Your task to perform on an android device: Do I have any events today? Image 0: 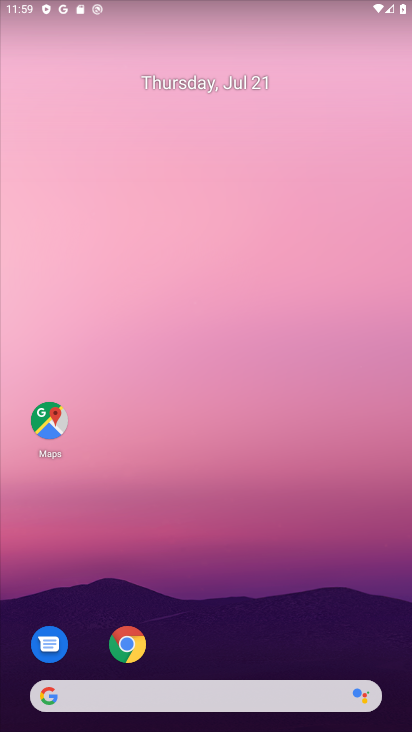
Step 0: drag from (308, 634) to (179, 105)
Your task to perform on an android device: Do I have any events today? Image 1: 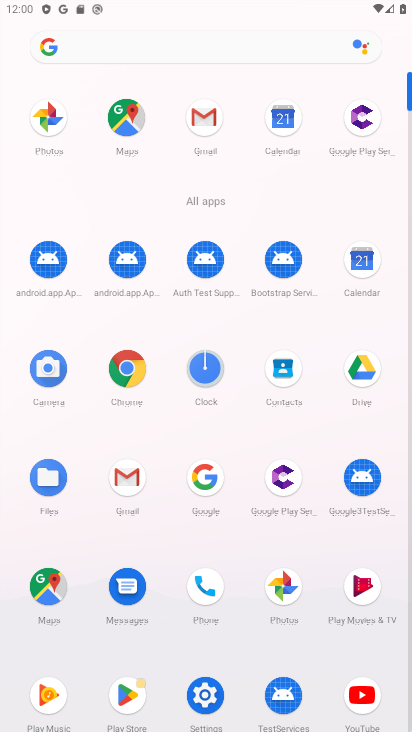
Step 1: click (375, 252)
Your task to perform on an android device: Do I have any events today? Image 2: 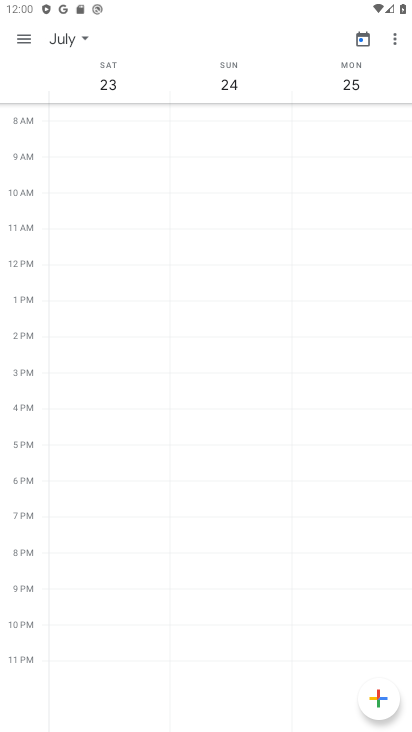
Step 2: click (25, 44)
Your task to perform on an android device: Do I have any events today? Image 3: 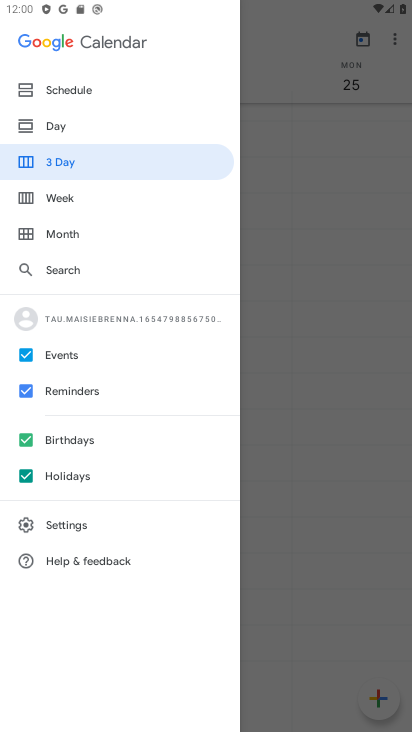
Step 3: click (82, 128)
Your task to perform on an android device: Do I have any events today? Image 4: 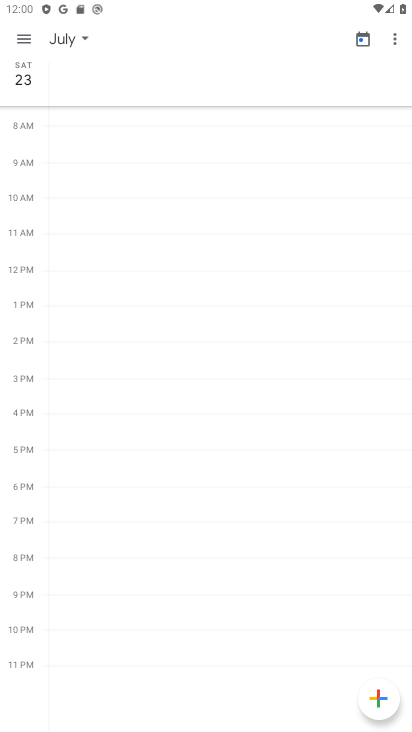
Step 4: click (74, 33)
Your task to perform on an android device: Do I have any events today? Image 5: 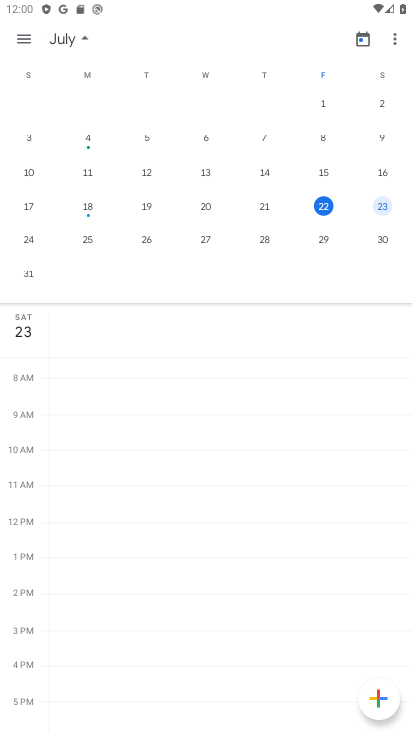
Step 5: click (325, 207)
Your task to perform on an android device: Do I have any events today? Image 6: 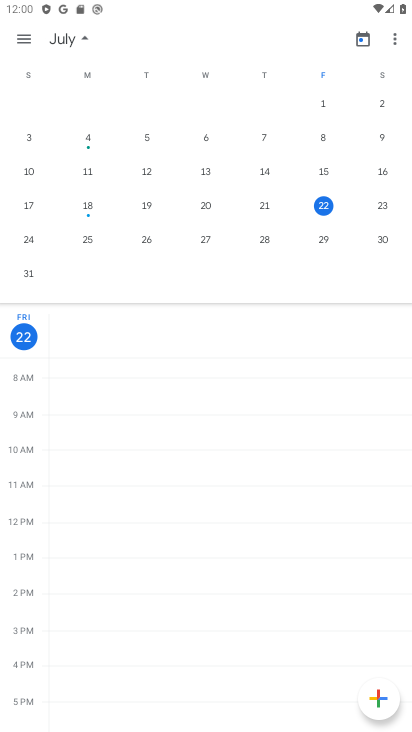
Step 6: task complete